Your task to perform on an android device: What's a good restaurant in San Francisco? Image 0: 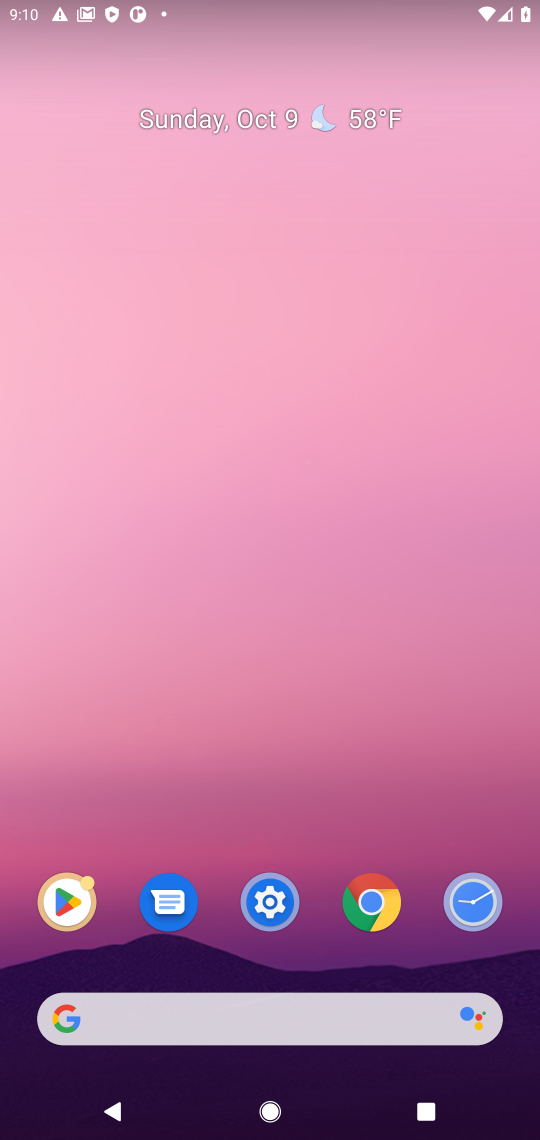
Step 0: click (381, 903)
Your task to perform on an android device: What's a good restaurant in San Francisco? Image 1: 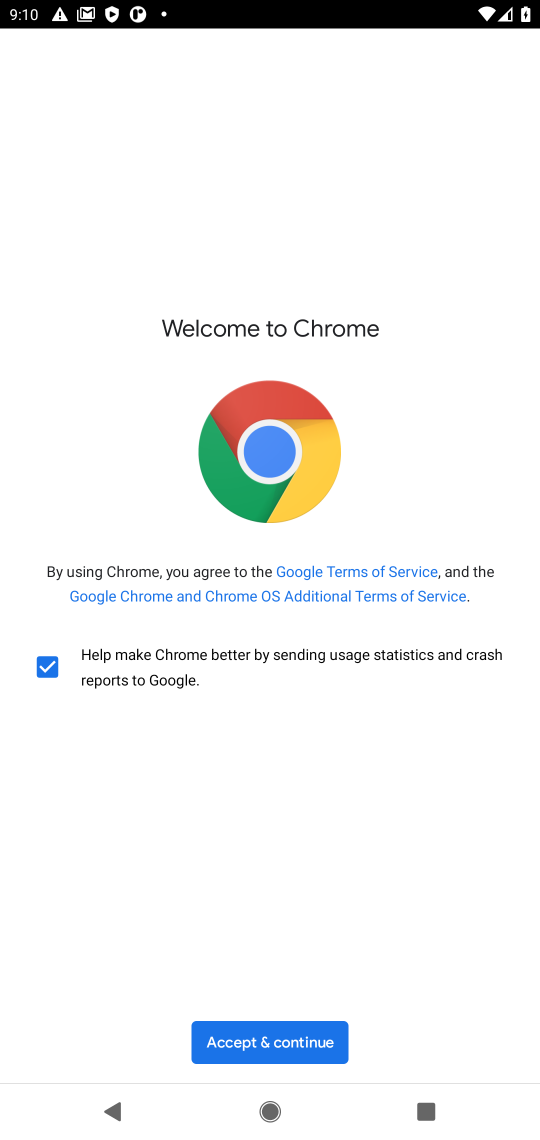
Step 1: click (243, 1051)
Your task to perform on an android device: What's a good restaurant in San Francisco? Image 2: 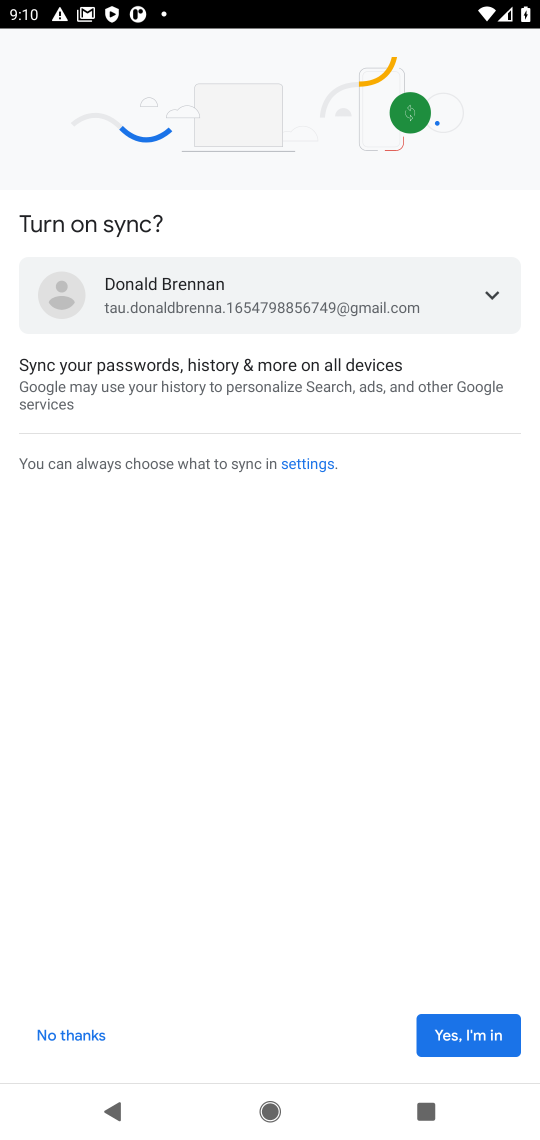
Step 2: click (50, 1034)
Your task to perform on an android device: What's a good restaurant in San Francisco? Image 3: 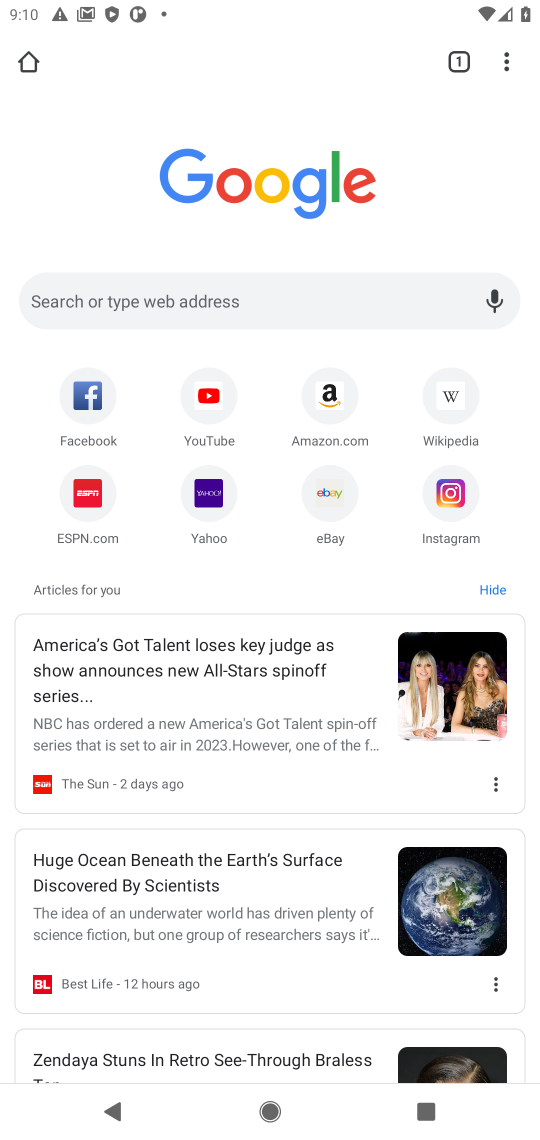
Step 3: click (357, 301)
Your task to perform on an android device: What's a good restaurant in San Francisco? Image 4: 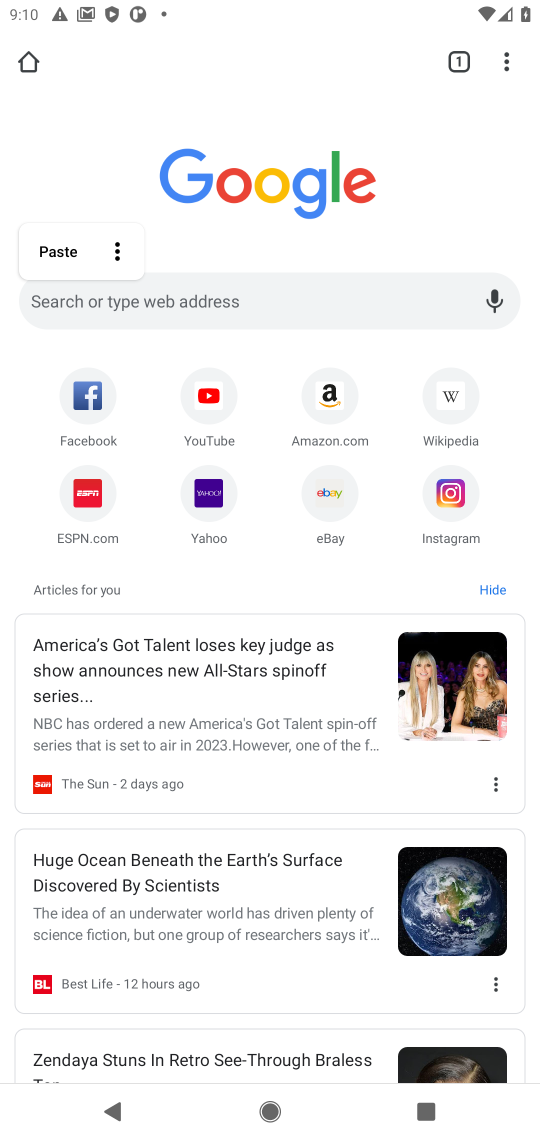
Step 4: type "good restaurant in San Francisco"
Your task to perform on an android device: What's a good restaurant in San Francisco? Image 5: 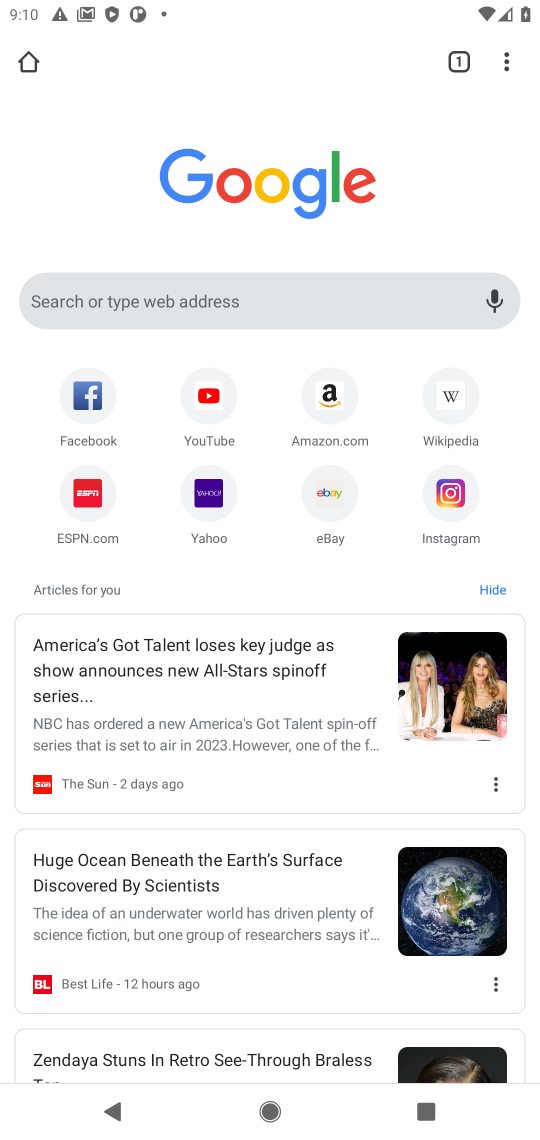
Step 5: type ""
Your task to perform on an android device: What's a good restaurant in San Francisco? Image 6: 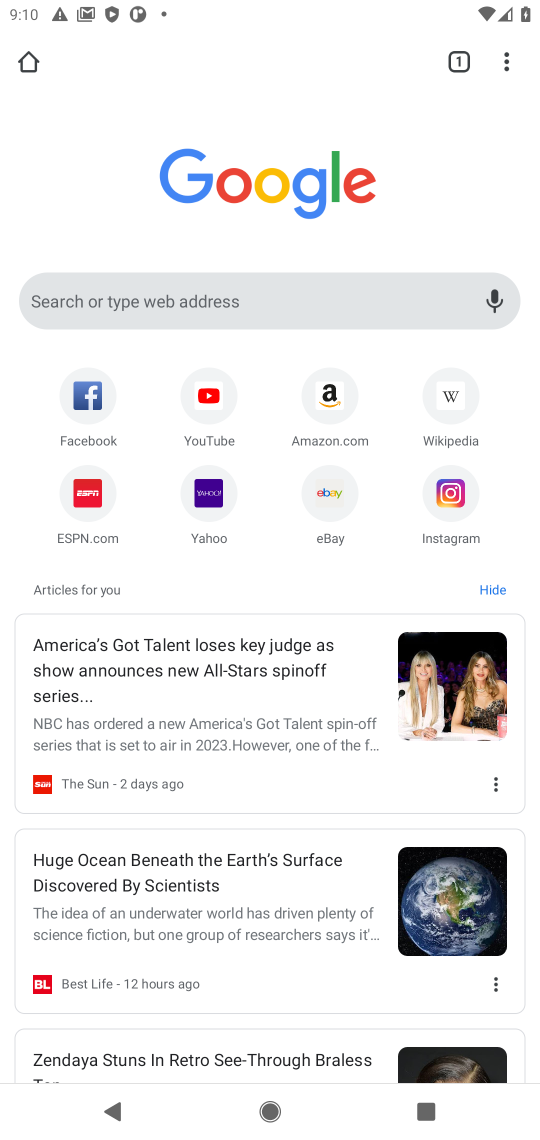
Step 6: click (305, 313)
Your task to perform on an android device: What's a good restaurant in San Francisco? Image 7: 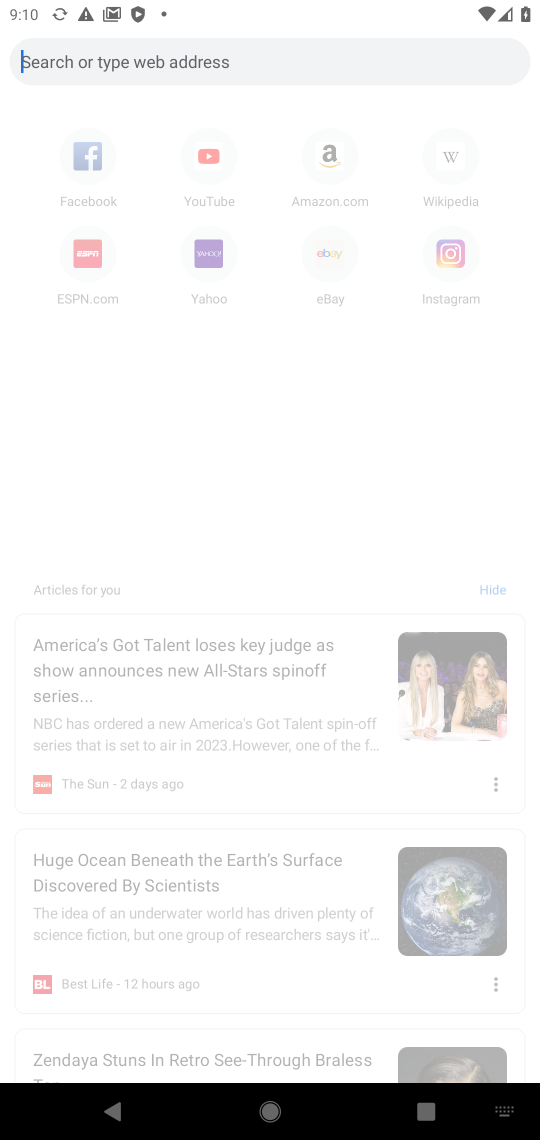
Step 7: type "good restaurant in San Francisco"
Your task to perform on an android device: What's a good restaurant in San Francisco? Image 8: 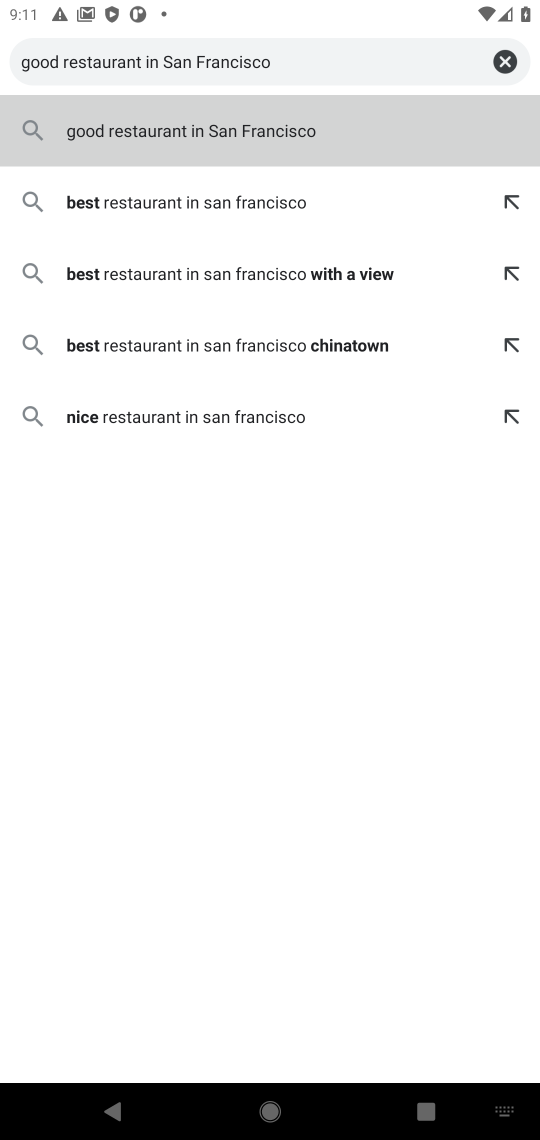
Step 8: type ""
Your task to perform on an android device: What's a good restaurant in San Francisco? Image 9: 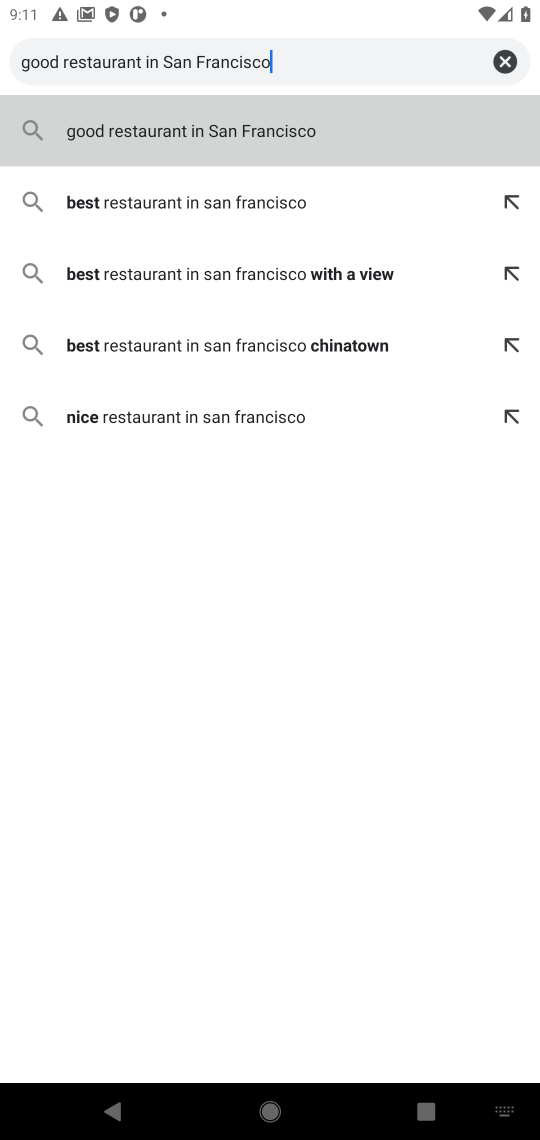
Step 9: click (93, 143)
Your task to perform on an android device: What's a good restaurant in San Francisco? Image 10: 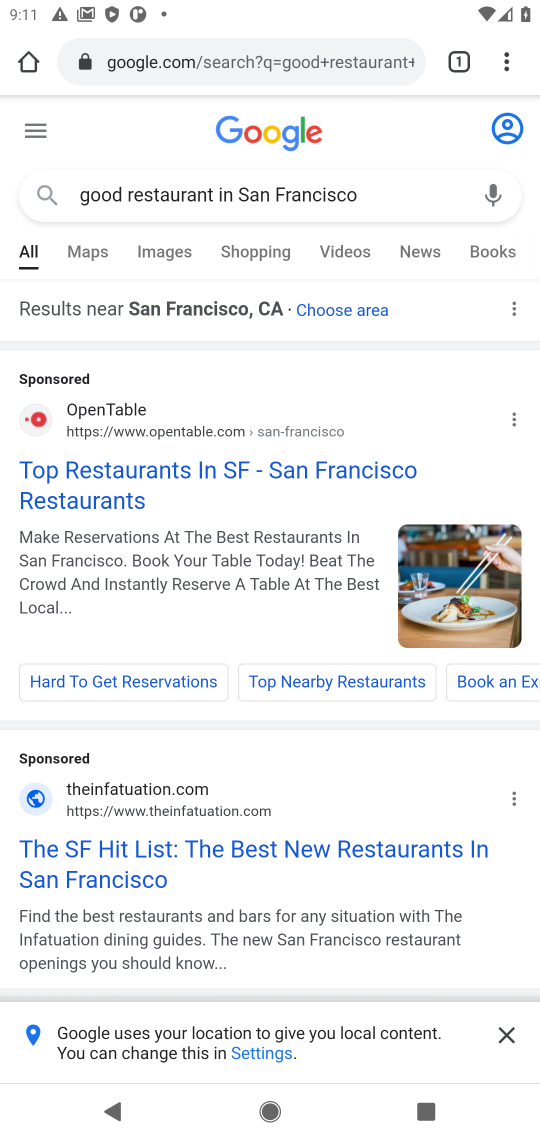
Step 10: drag from (256, 777) to (178, 297)
Your task to perform on an android device: What's a good restaurant in San Francisco? Image 11: 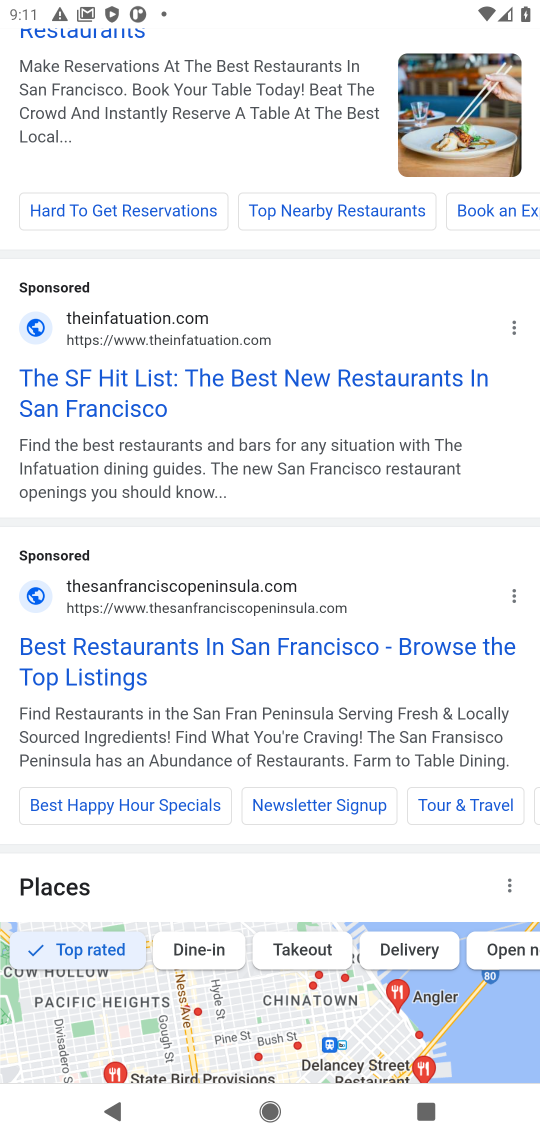
Step 11: drag from (393, 983) to (280, 184)
Your task to perform on an android device: What's a good restaurant in San Francisco? Image 12: 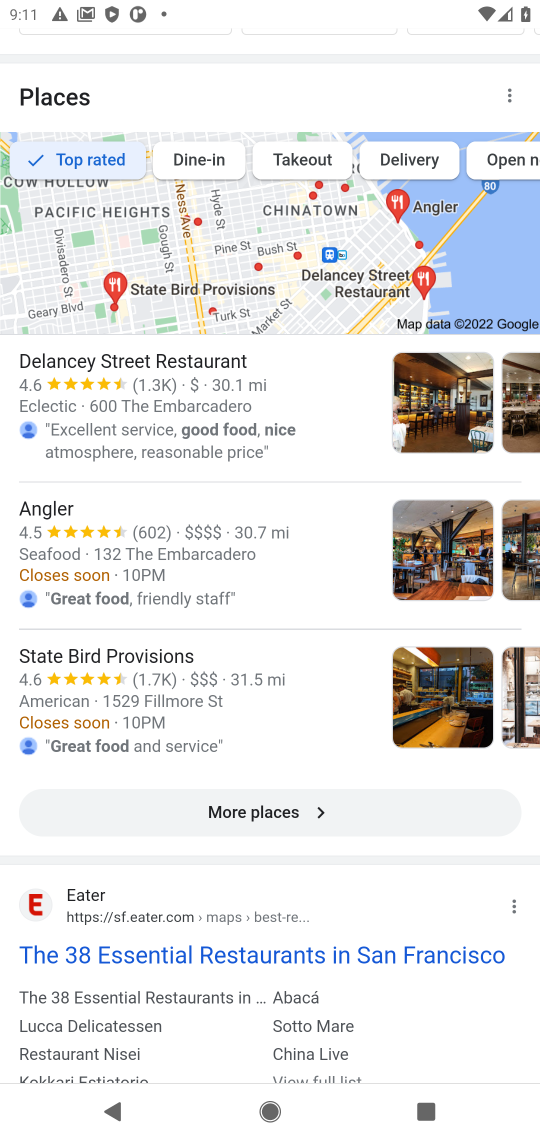
Step 12: click (272, 822)
Your task to perform on an android device: What's a good restaurant in San Francisco? Image 13: 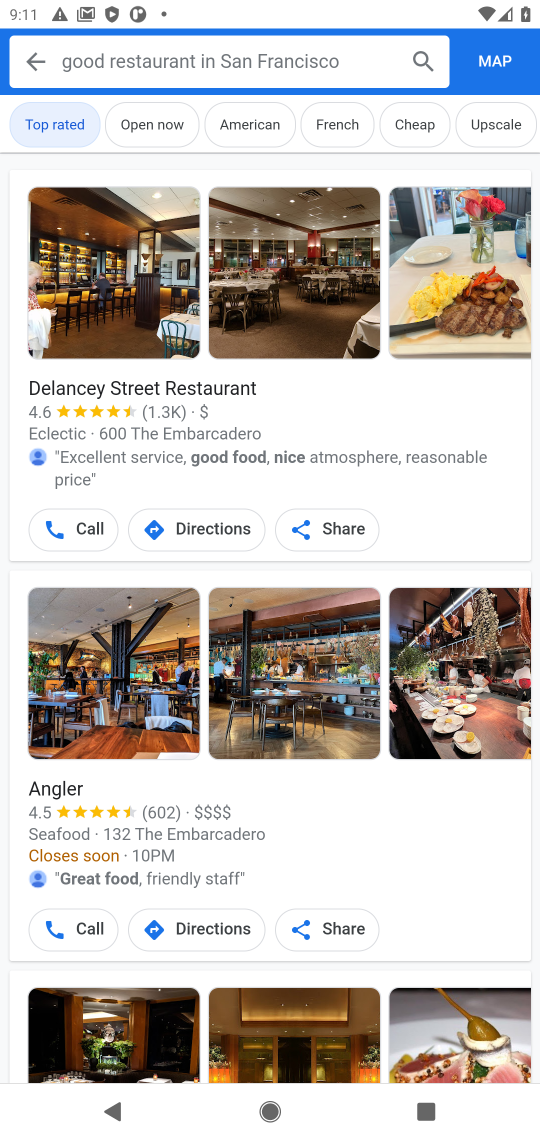
Step 13: task complete